Your task to perform on an android device: Add "logitech g903" to the cart on walmart.com Image 0: 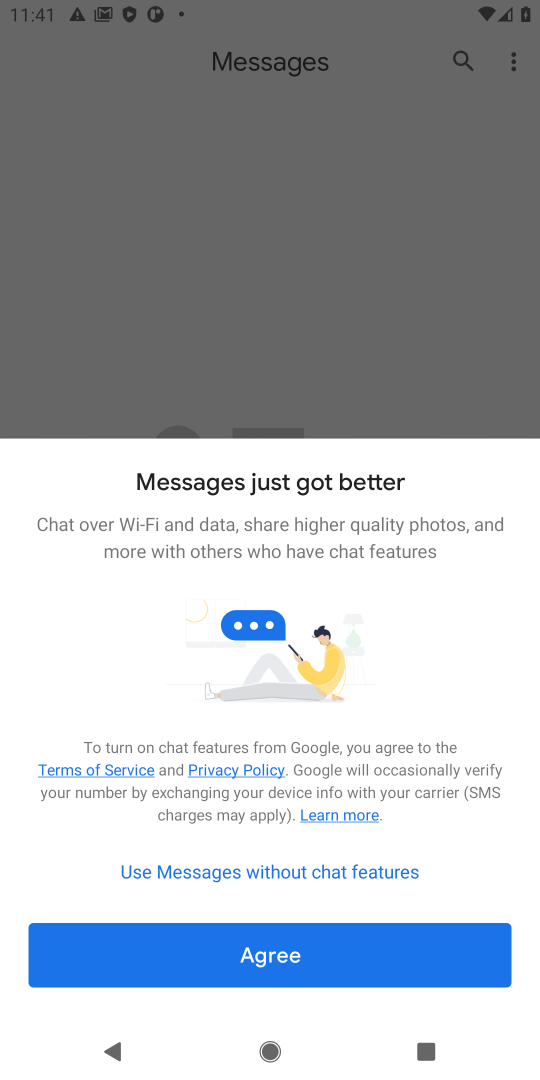
Step 0: press home button
Your task to perform on an android device: Add "logitech g903" to the cart on walmart.com Image 1: 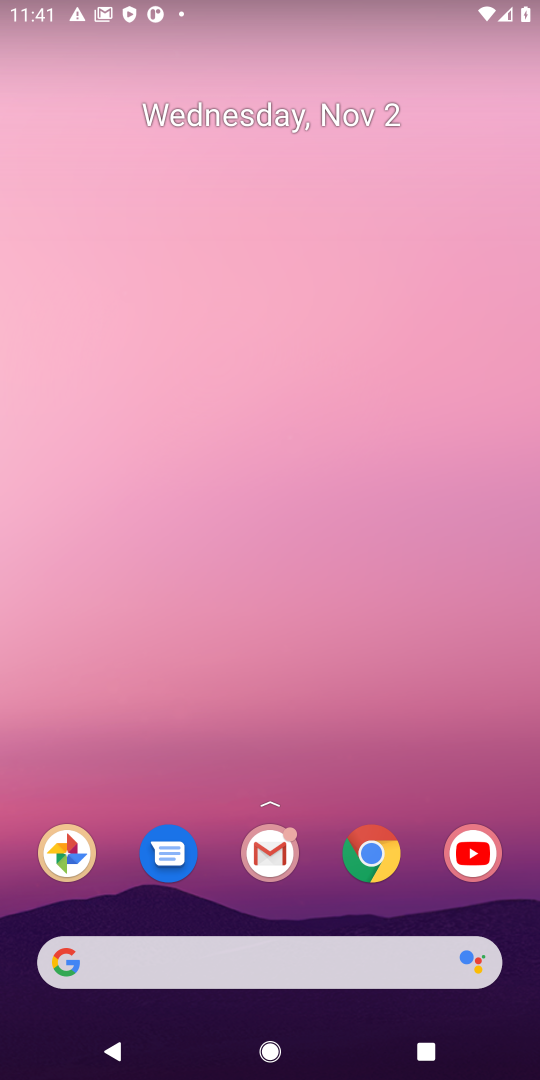
Step 1: click (367, 868)
Your task to perform on an android device: Add "logitech g903" to the cart on walmart.com Image 2: 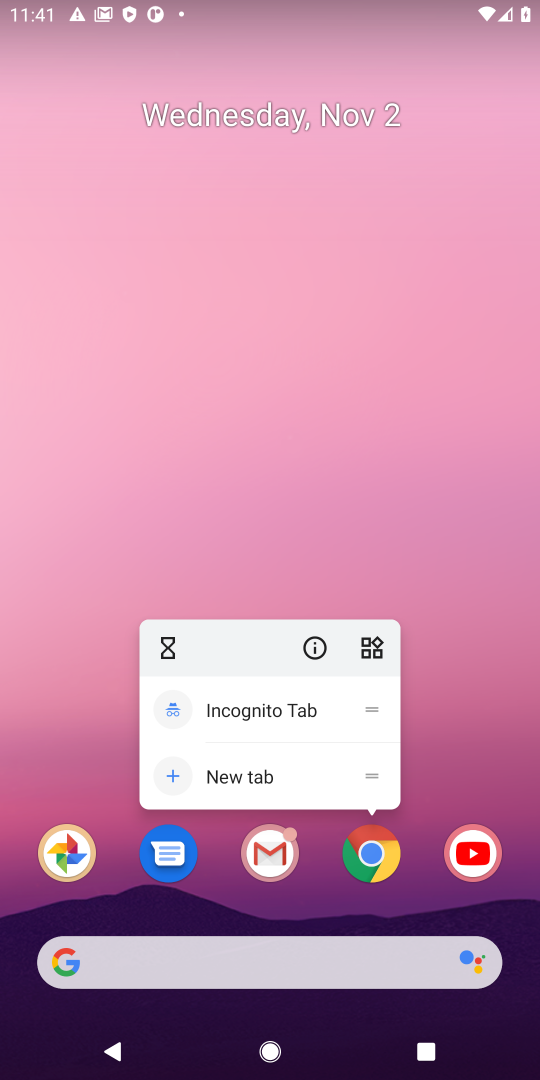
Step 2: click (383, 849)
Your task to perform on an android device: Add "logitech g903" to the cart on walmart.com Image 3: 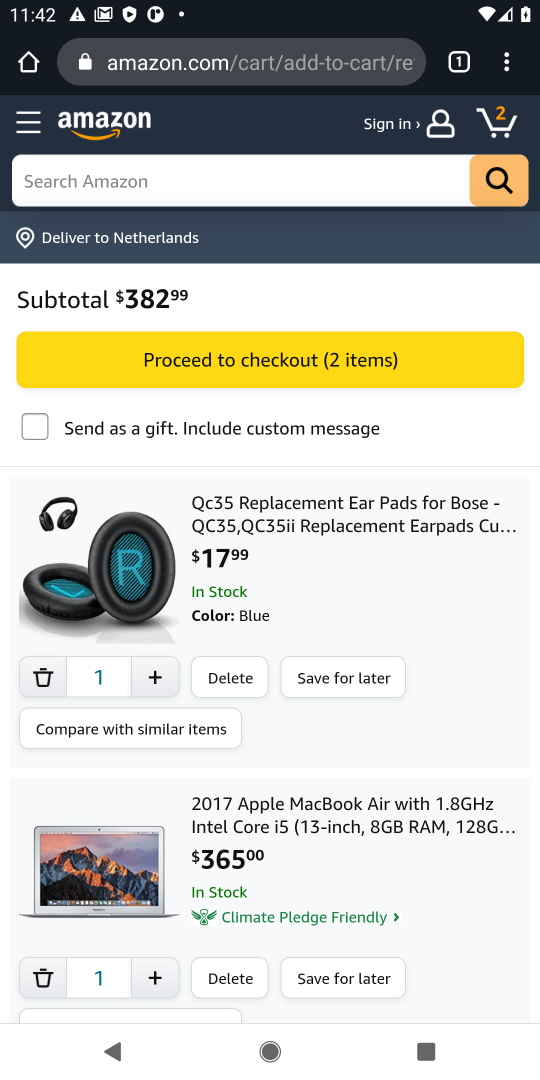
Step 3: click (217, 63)
Your task to perform on an android device: Add "logitech g903" to the cart on walmart.com Image 4: 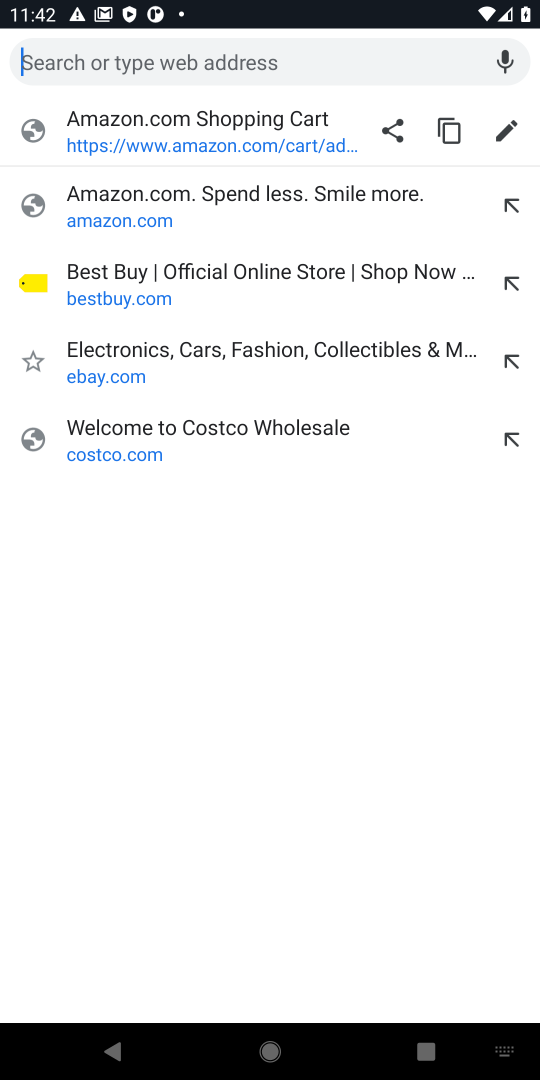
Step 4: type "walmart.com"
Your task to perform on an android device: Add "logitech g903" to the cart on walmart.com Image 5: 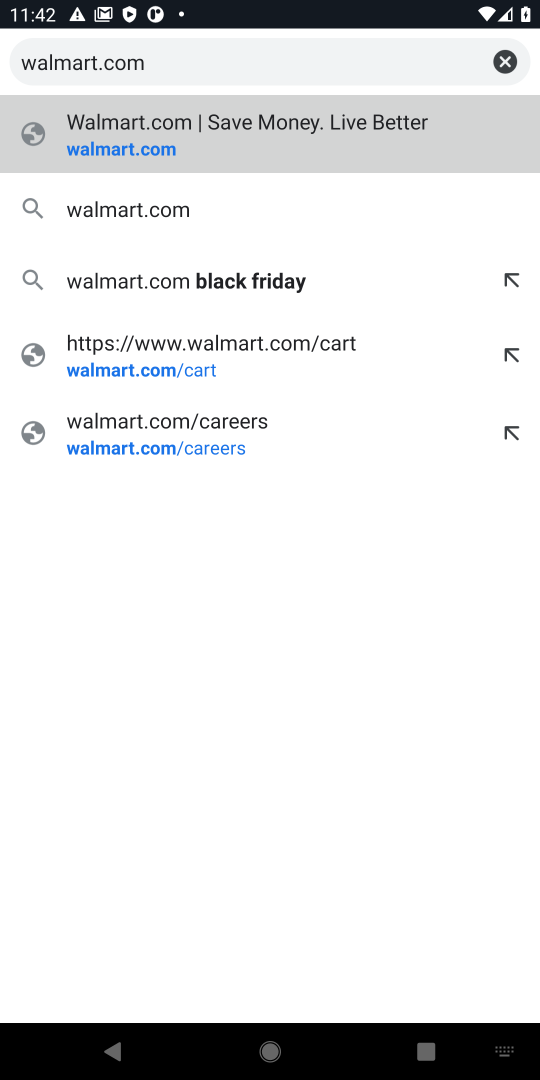
Step 5: press enter
Your task to perform on an android device: Add "logitech g903" to the cart on walmart.com Image 6: 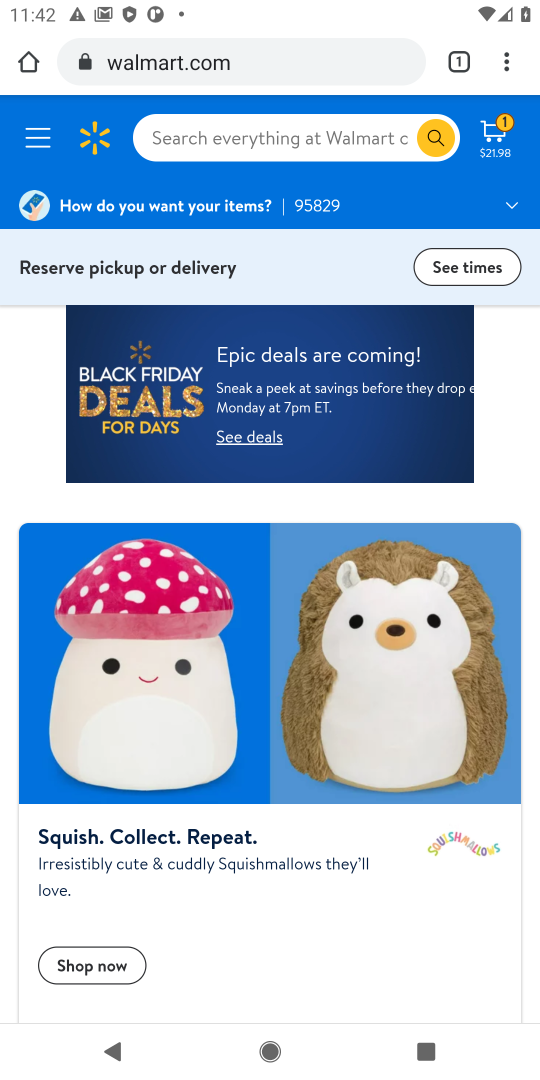
Step 6: click (246, 132)
Your task to perform on an android device: Add "logitech g903" to the cart on walmart.com Image 7: 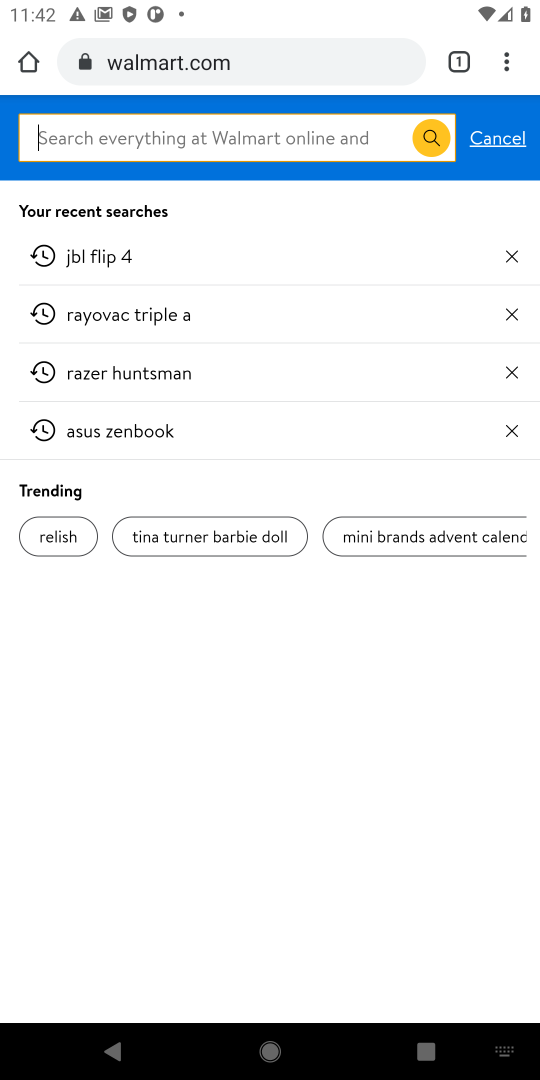
Step 7: type "logitech g903"
Your task to perform on an android device: Add "logitech g903" to the cart on walmart.com Image 8: 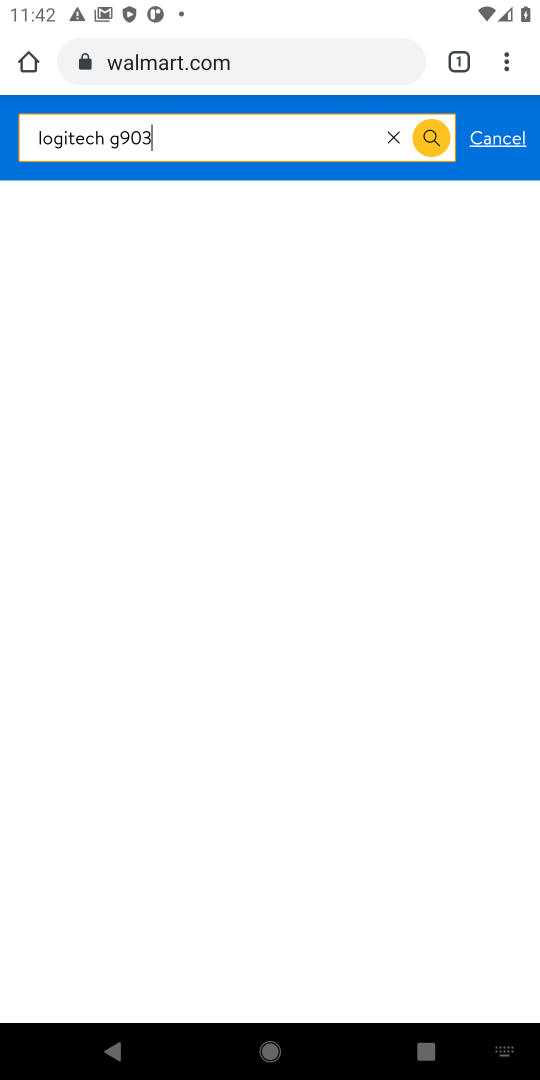
Step 8: press enter
Your task to perform on an android device: Add "logitech g903" to the cart on walmart.com Image 9: 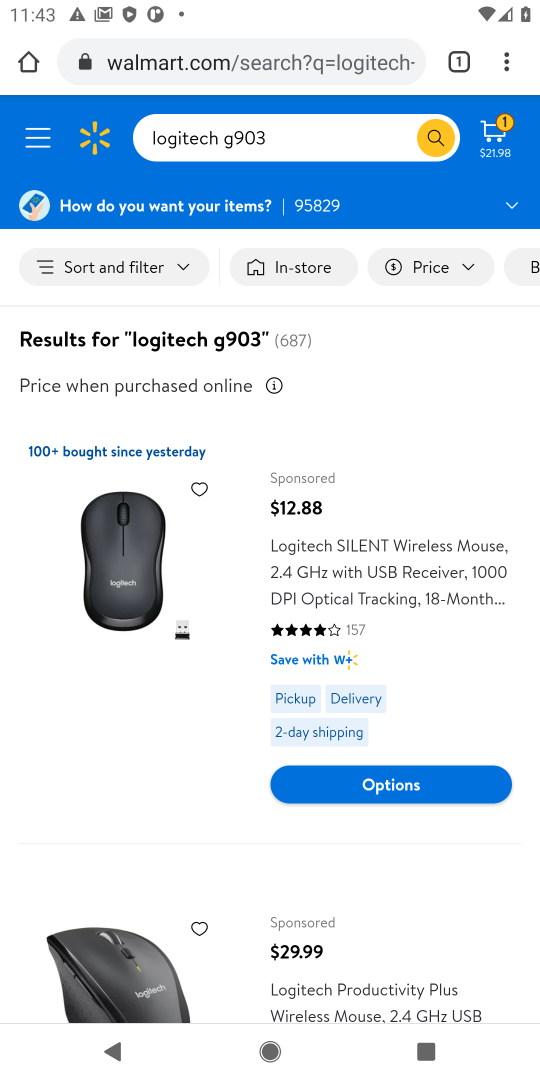
Step 9: task complete